Your task to perform on an android device: move a message to another label in the gmail app Image 0: 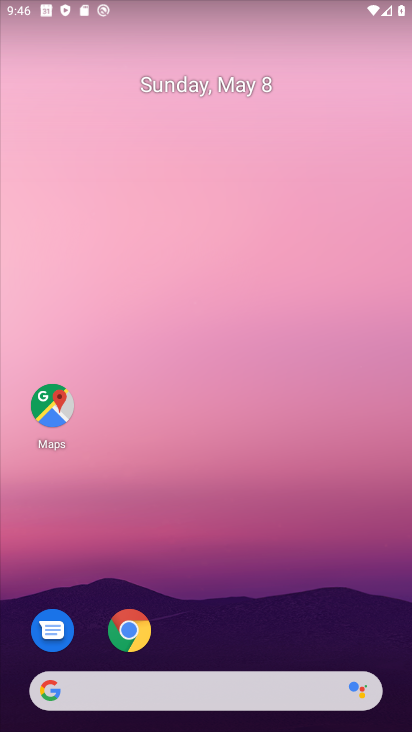
Step 0: drag from (228, 723) to (225, 265)
Your task to perform on an android device: move a message to another label in the gmail app Image 1: 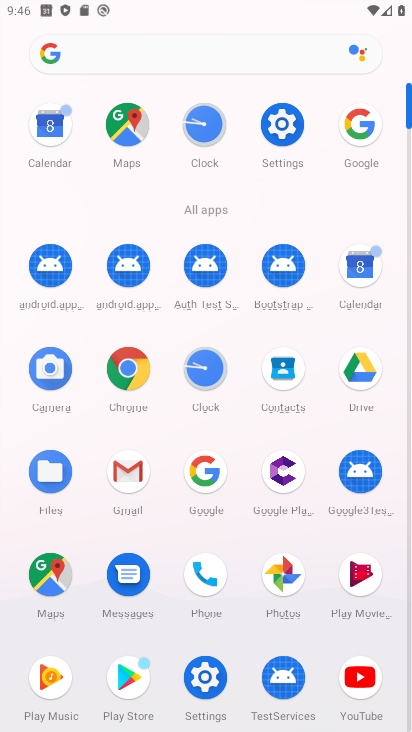
Step 1: click (132, 470)
Your task to perform on an android device: move a message to another label in the gmail app Image 2: 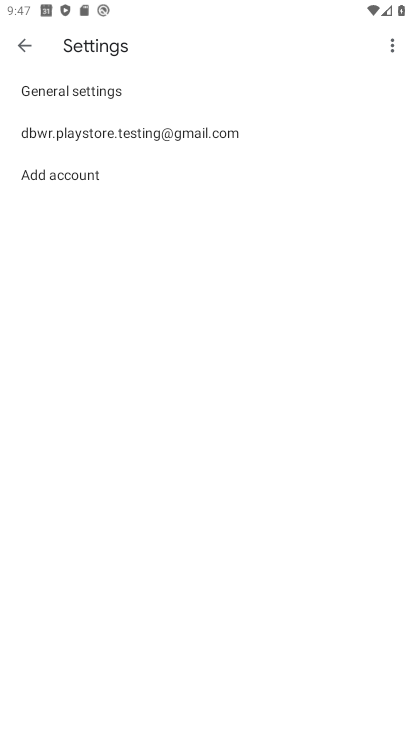
Step 2: click (183, 129)
Your task to perform on an android device: move a message to another label in the gmail app Image 3: 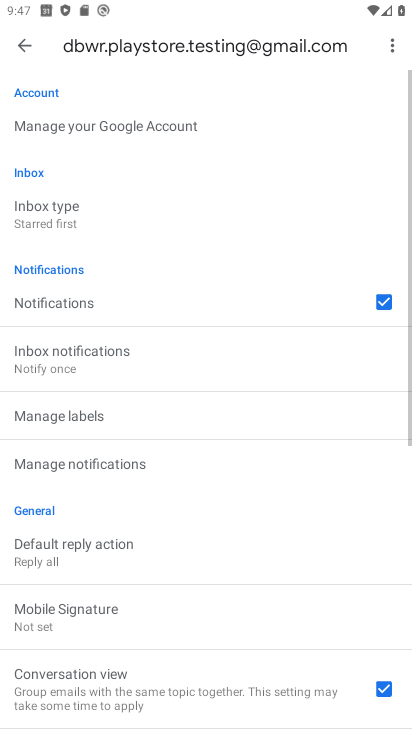
Step 3: click (17, 42)
Your task to perform on an android device: move a message to another label in the gmail app Image 4: 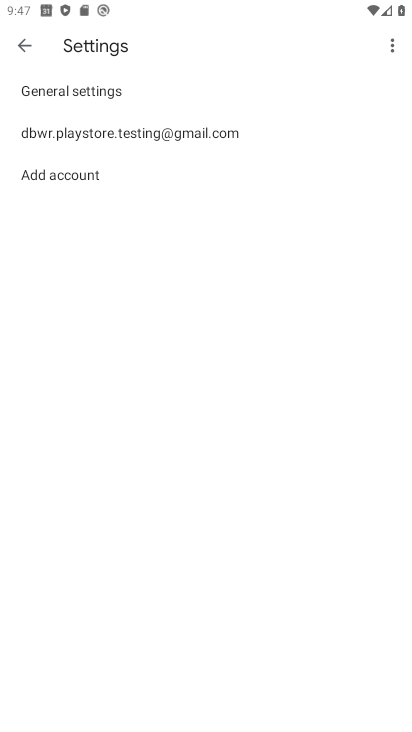
Step 4: click (21, 45)
Your task to perform on an android device: move a message to another label in the gmail app Image 5: 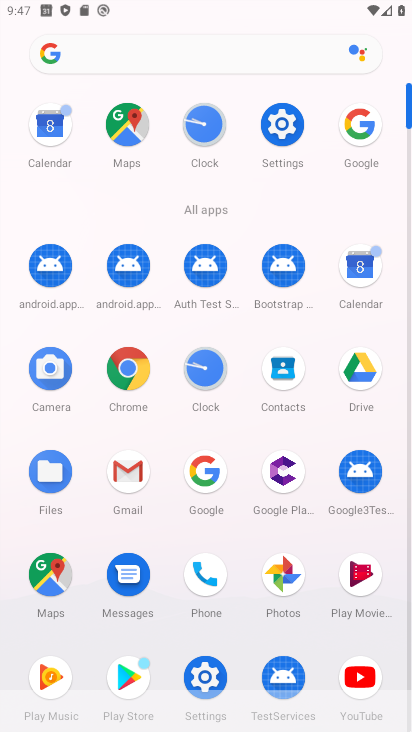
Step 5: click (124, 472)
Your task to perform on an android device: move a message to another label in the gmail app Image 6: 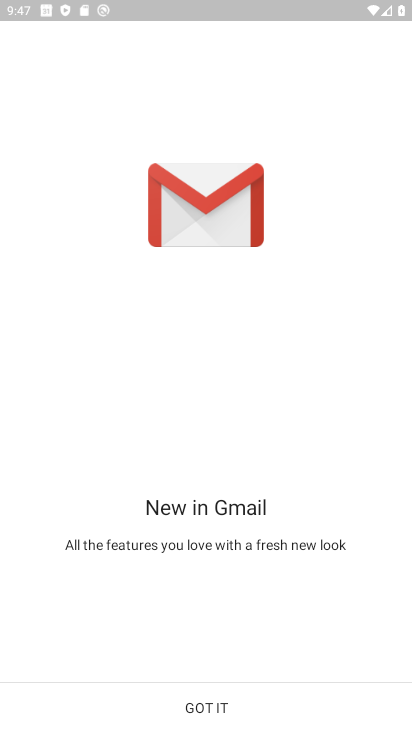
Step 6: click (225, 711)
Your task to perform on an android device: move a message to another label in the gmail app Image 7: 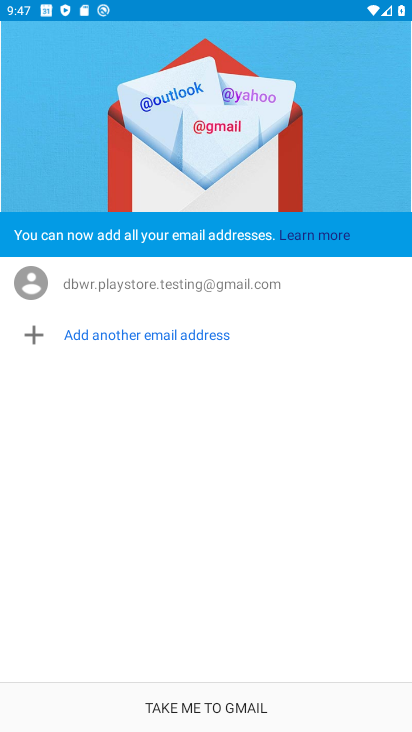
Step 7: click (207, 700)
Your task to perform on an android device: move a message to another label in the gmail app Image 8: 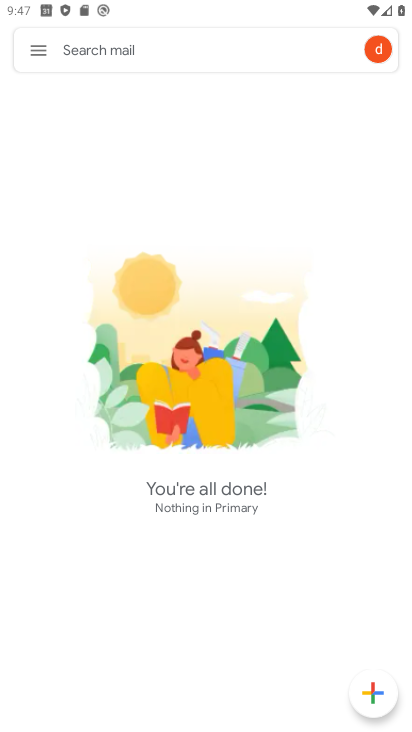
Step 8: task complete